Your task to perform on an android device: Go to settings Image 0: 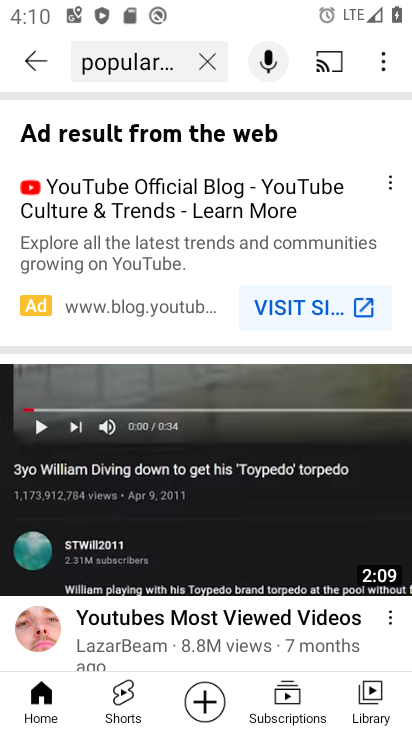
Step 0: press home button
Your task to perform on an android device: Go to settings Image 1: 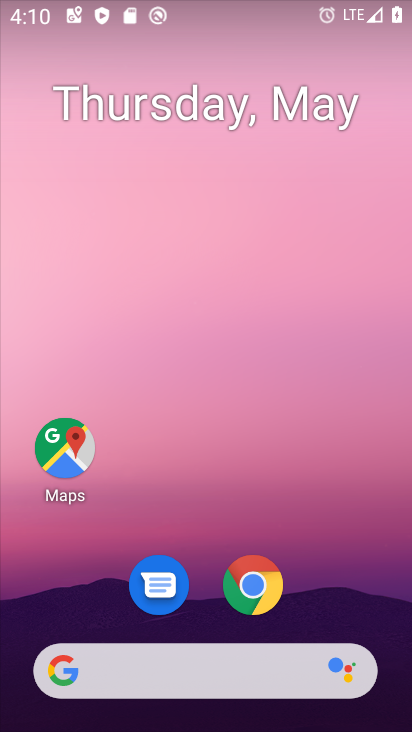
Step 1: drag from (235, 540) to (236, 110)
Your task to perform on an android device: Go to settings Image 2: 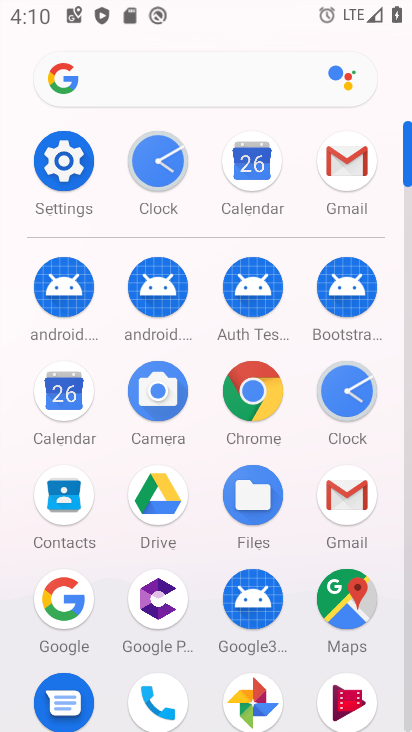
Step 2: click (77, 148)
Your task to perform on an android device: Go to settings Image 3: 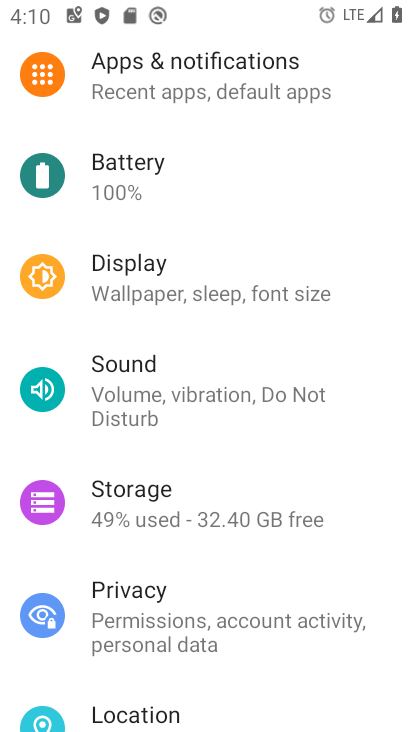
Step 3: task complete